Your task to perform on an android device: turn off javascript in the chrome app Image 0: 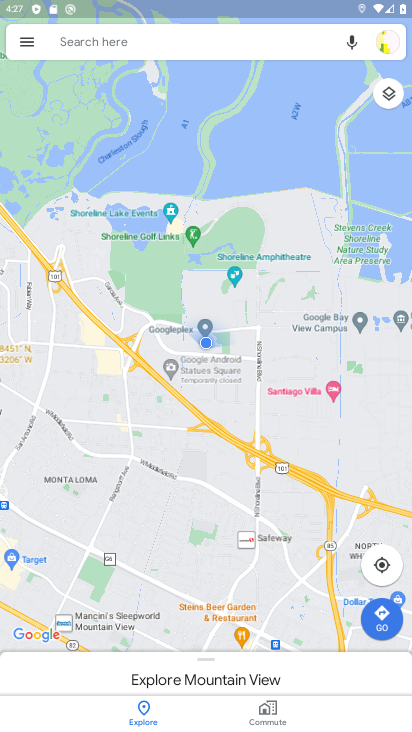
Step 0: press home button
Your task to perform on an android device: turn off javascript in the chrome app Image 1: 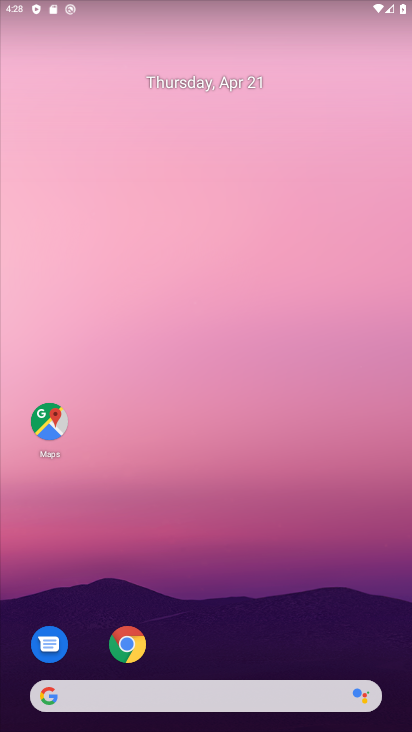
Step 1: click (129, 645)
Your task to perform on an android device: turn off javascript in the chrome app Image 2: 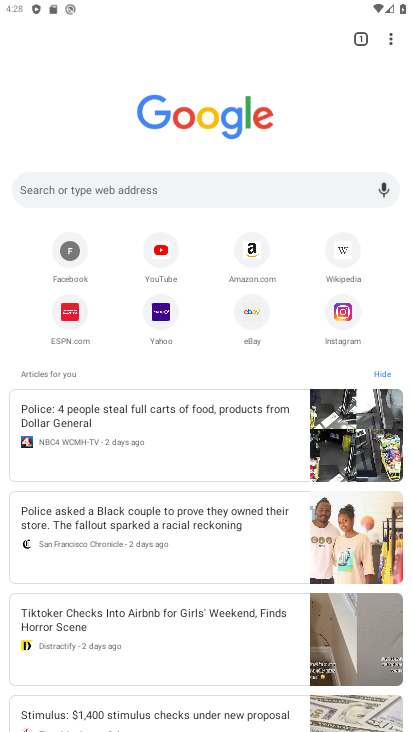
Step 2: drag from (390, 40) to (286, 322)
Your task to perform on an android device: turn off javascript in the chrome app Image 3: 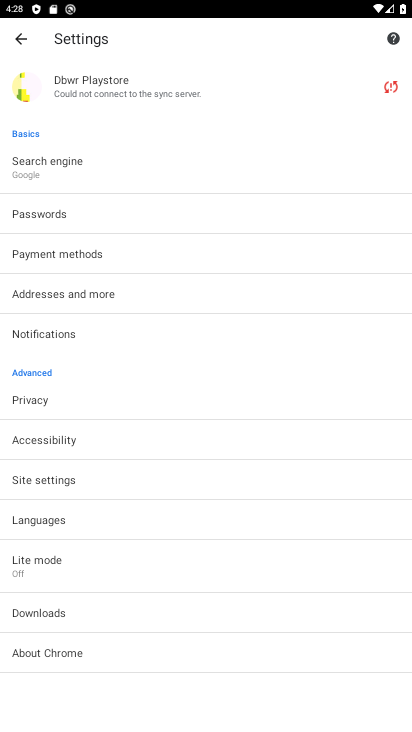
Step 3: click (54, 477)
Your task to perform on an android device: turn off javascript in the chrome app Image 4: 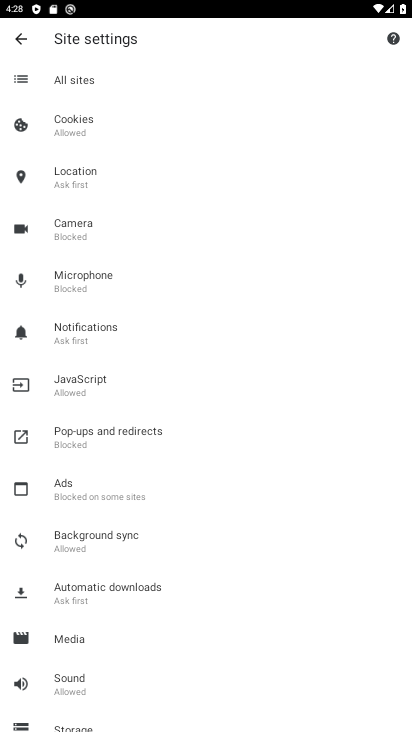
Step 4: click (76, 371)
Your task to perform on an android device: turn off javascript in the chrome app Image 5: 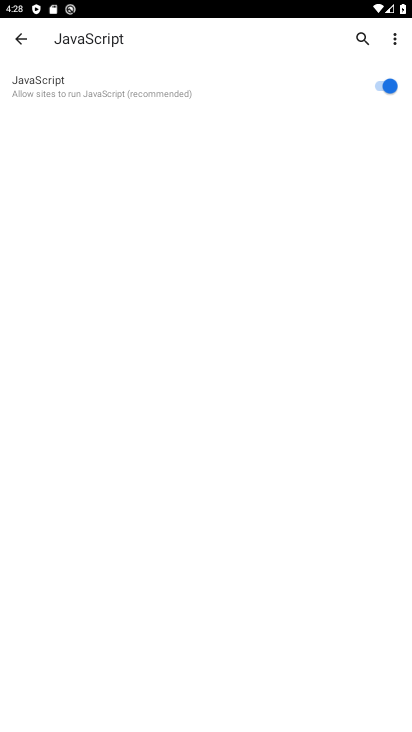
Step 5: click (378, 87)
Your task to perform on an android device: turn off javascript in the chrome app Image 6: 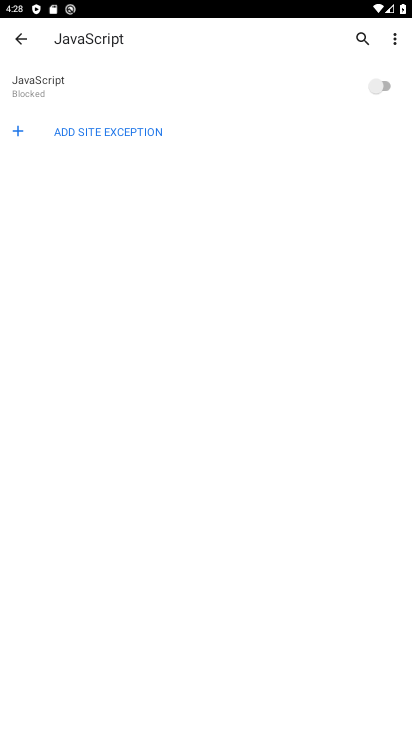
Step 6: task complete